Your task to perform on an android device: Search for Italian restaurants on Maps Image 0: 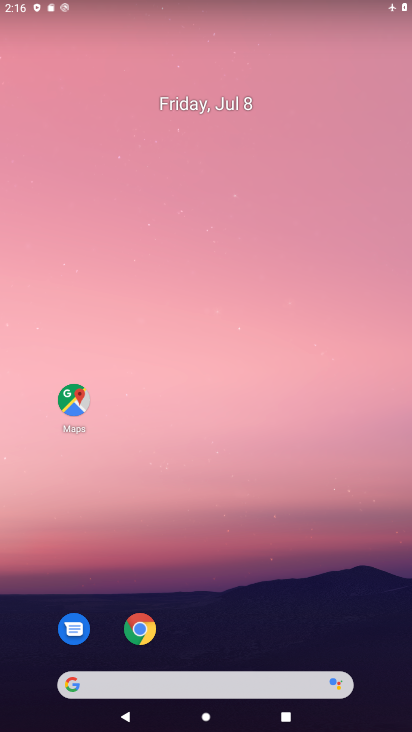
Step 0: click (74, 397)
Your task to perform on an android device: Search for Italian restaurants on Maps Image 1: 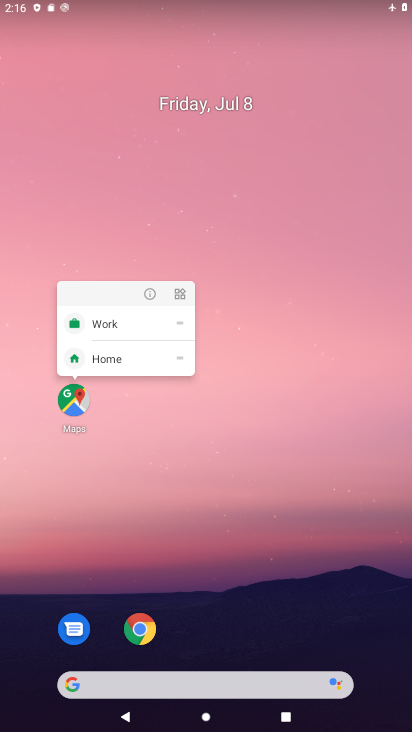
Step 1: task complete